Your task to perform on an android device: Go to Yahoo.com Image 0: 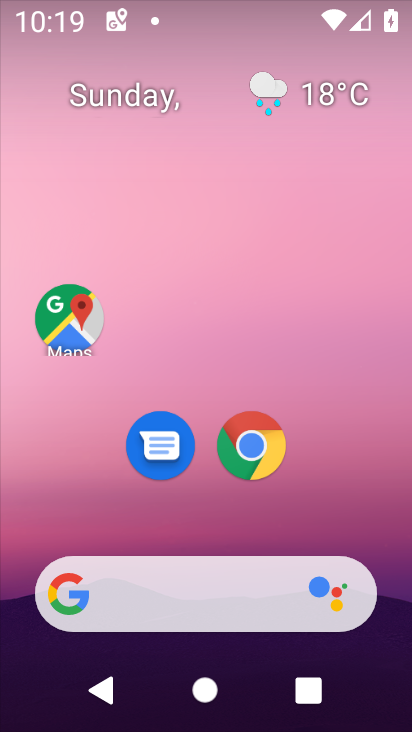
Step 0: drag from (181, 531) to (229, 48)
Your task to perform on an android device: Go to Yahoo.com Image 1: 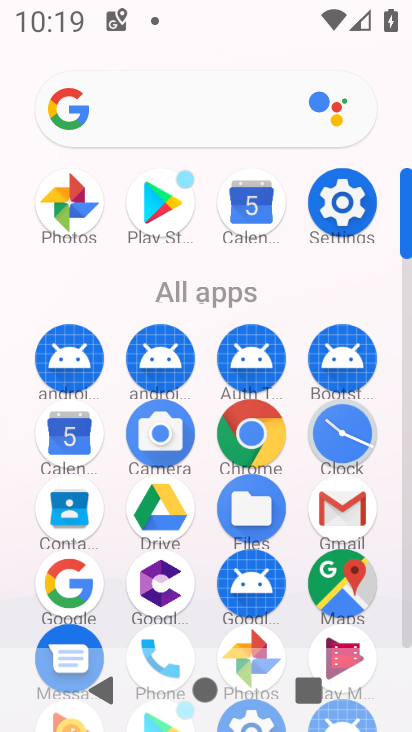
Step 1: click (245, 424)
Your task to perform on an android device: Go to Yahoo.com Image 2: 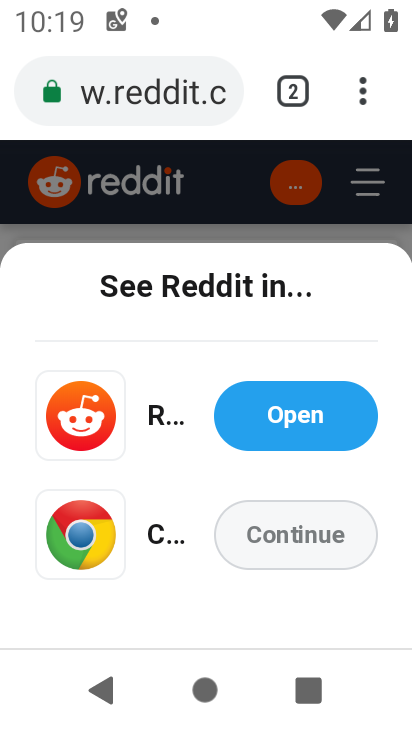
Step 2: click (306, 545)
Your task to perform on an android device: Go to Yahoo.com Image 3: 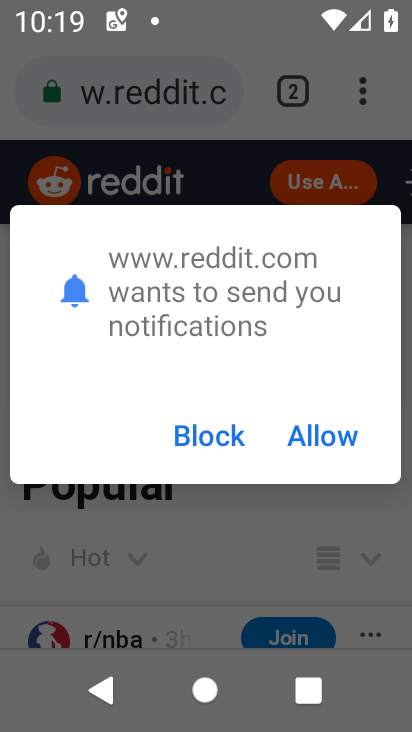
Step 3: click (224, 432)
Your task to perform on an android device: Go to Yahoo.com Image 4: 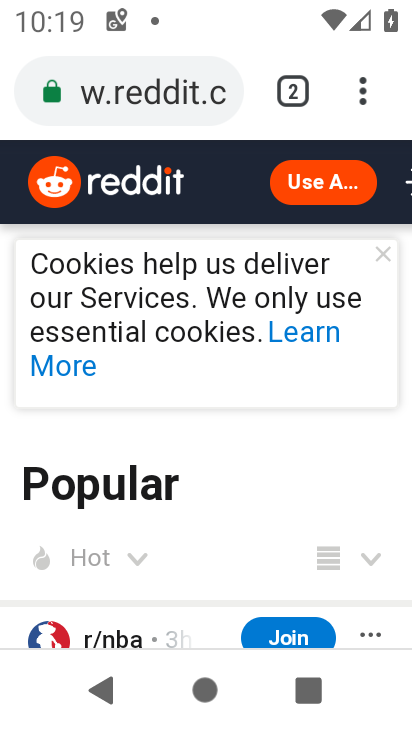
Step 4: click (286, 85)
Your task to perform on an android device: Go to Yahoo.com Image 5: 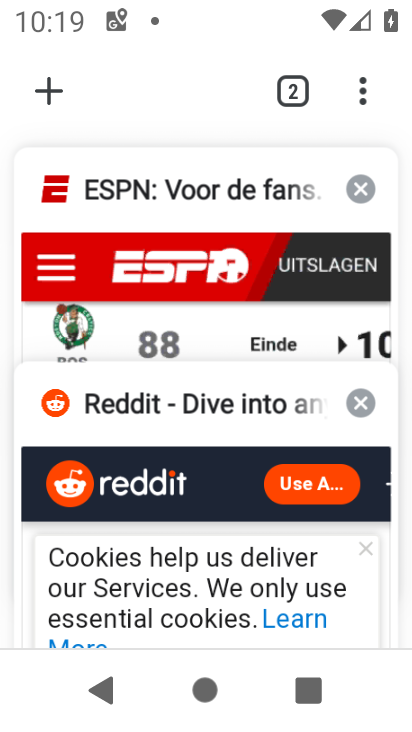
Step 5: click (364, 183)
Your task to perform on an android device: Go to Yahoo.com Image 6: 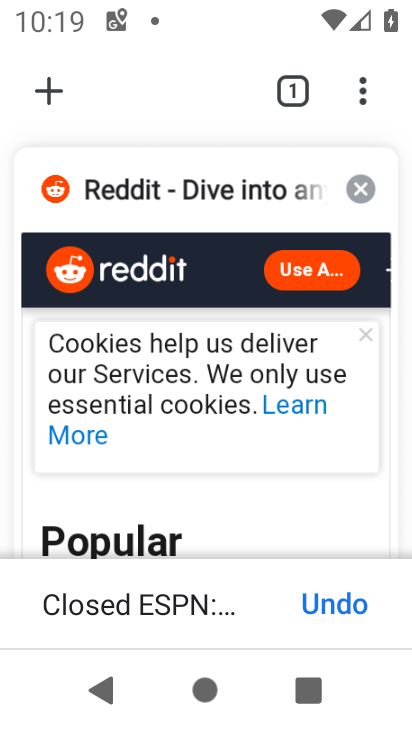
Step 6: click (357, 179)
Your task to perform on an android device: Go to Yahoo.com Image 7: 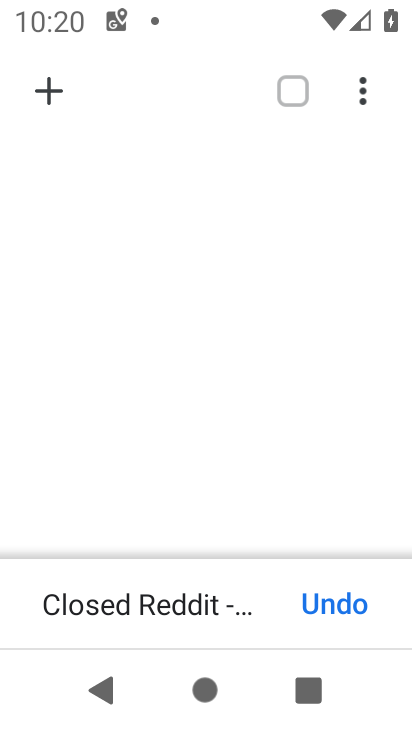
Step 7: click (54, 93)
Your task to perform on an android device: Go to Yahoo.com Image 8: 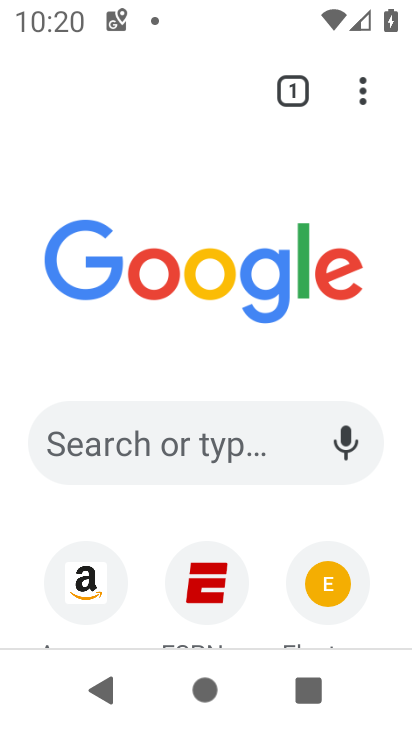
Step 8: drag from (259, 535) to (284, 225)
Your task to perform on an android device: Go to Yahoo.com Image 9: 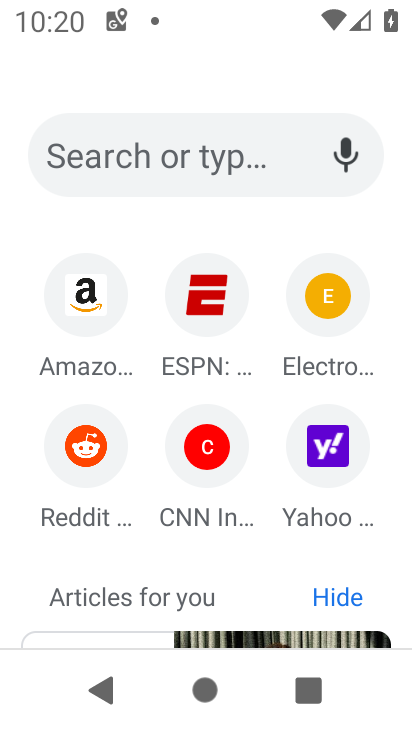
Step 9: click (325, 447)
Your task to perform on an android device: Go to Yahoo.com Image 10: 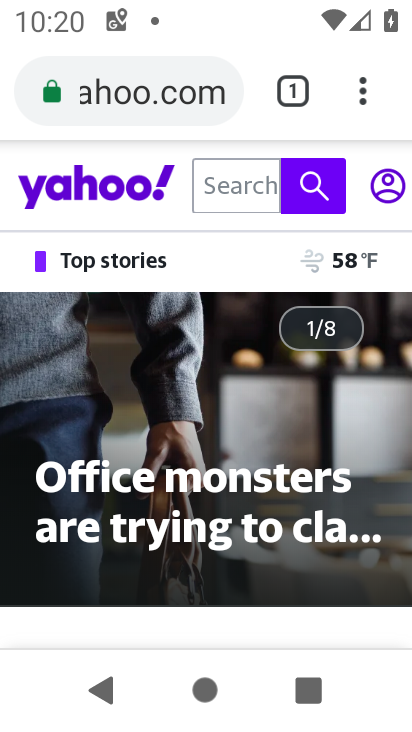
Step 10: drag from (210, 623) to (256, 223)
Your task to perform on an android device: Go to Yahoo.com Image 11: 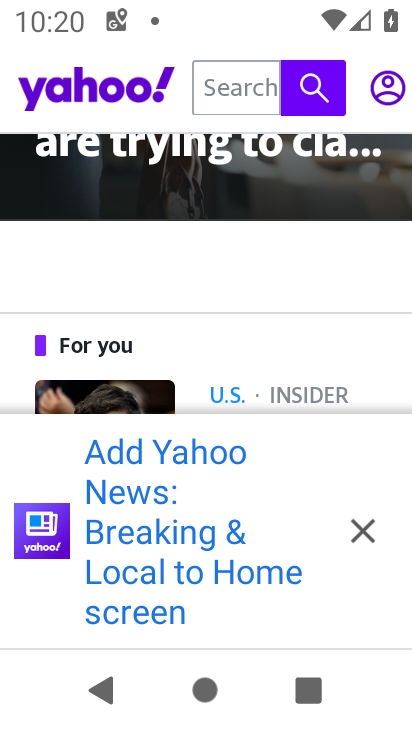
Step 11: click (364, 532)
Your task to perform on an android device: Go to Yahoo.com Image 12: 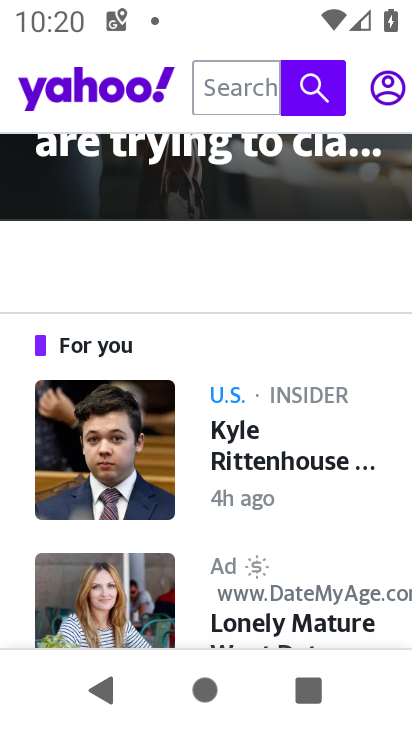
Step 12: task complete